Your task to perform on an android device: Go to eBay Image 0: 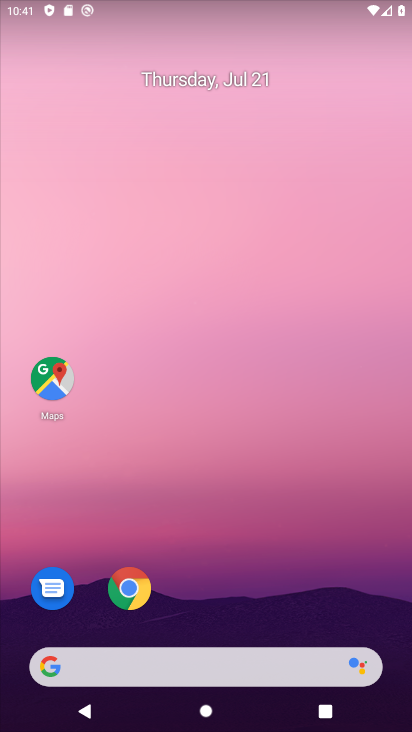
Step 0: drag from (248, 524) to (144, 21)
Your task to perform on an android device: Go to eBay Image 1: 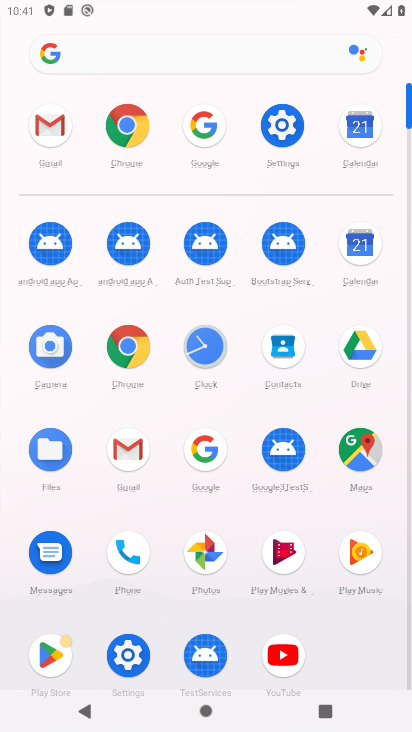
Step 1: click (157, 51)
Your task to perform on an android device: Go to eBay Image 2: 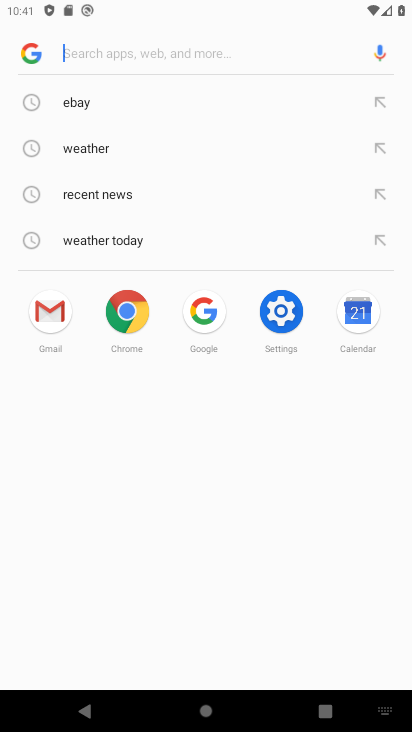
Step 2: click (101, 102)
Your task to perform on an android device: Go to eBay Image 3: 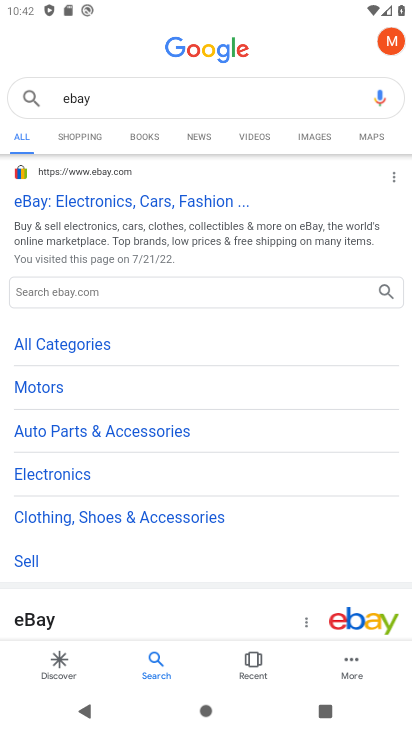
Step 3: click (128, 206)
Your task to perform on an android device: Go to eBay Image 4: 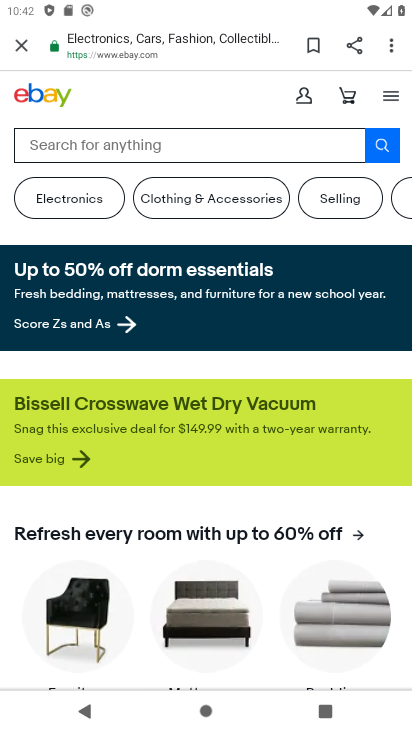
Step 4: task complete